Your task to perform on an android device: stop showing notifications on the lock screen Image 0: 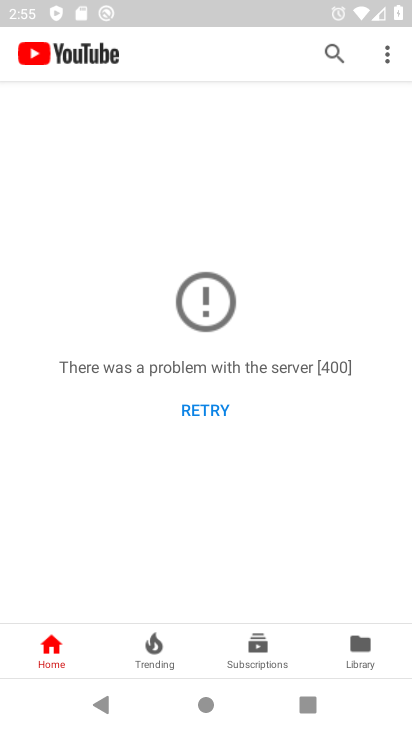
Step 0: press home button
Your task to perform on an android device: stop showing notifications on the lock screen Image 1: 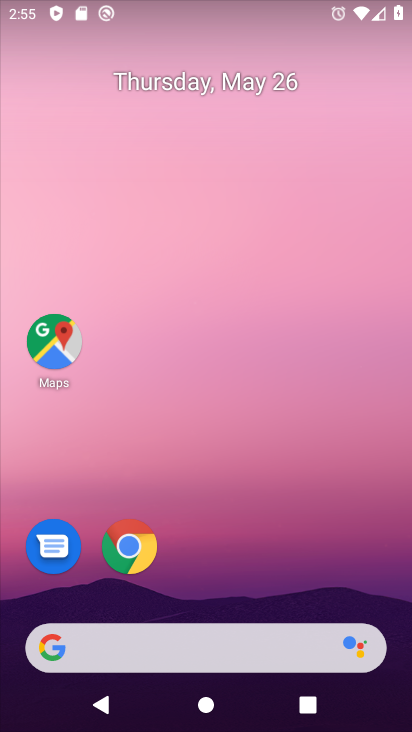
Step 1: drag from (396, 679) to (371, 295)
Your task to perform on an android device: stop showing notifications on the lock screen Image 2: 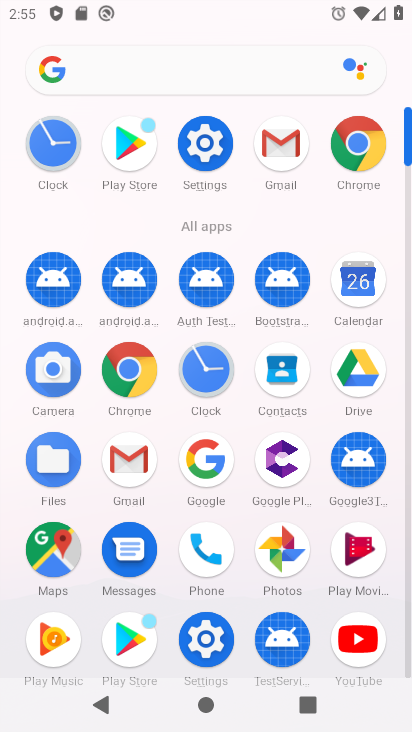
Step 2: click (202, 632)
Your task to perform on an android device: stop showing notifications on the lock screen Image 3: 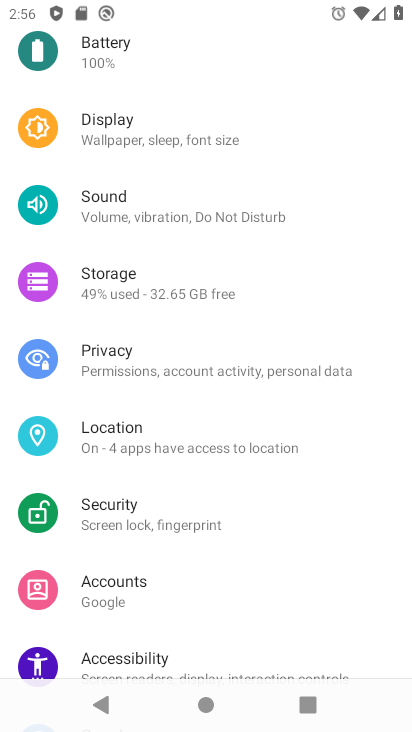
Step 3: drag from (265, 104) to (309, 419)
Your task to perform on an android device: stop showing notifications on the lock screen Image 4: 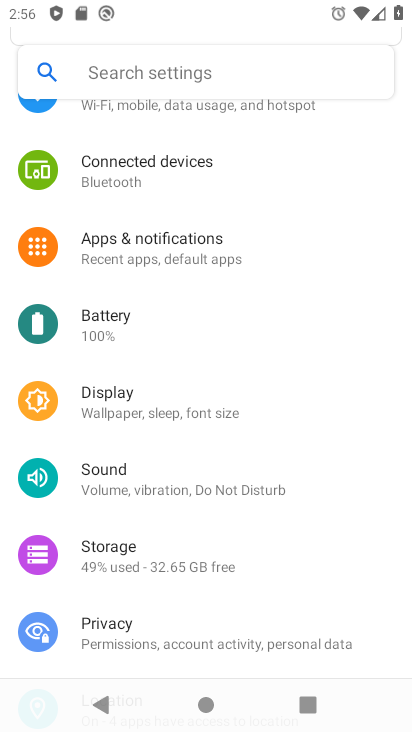
Step 4: click (199, 246)
Your task to perform on an android device: stop showing notifications on the lock screen Image 5: 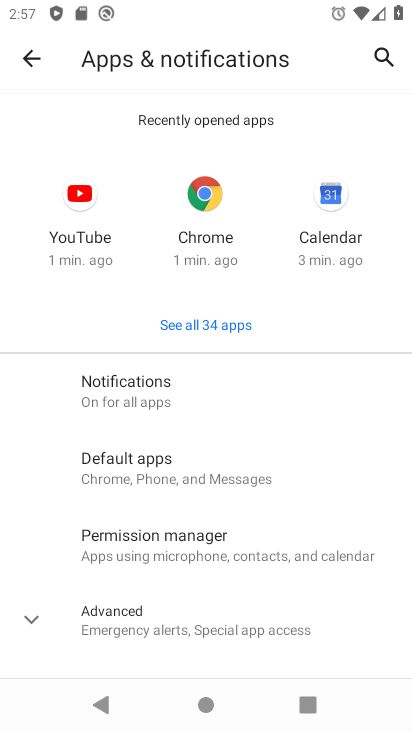
Step 5: click (134, 384)
Your task to perform on an android device: stop showing notifications on the lock screen Image 6: 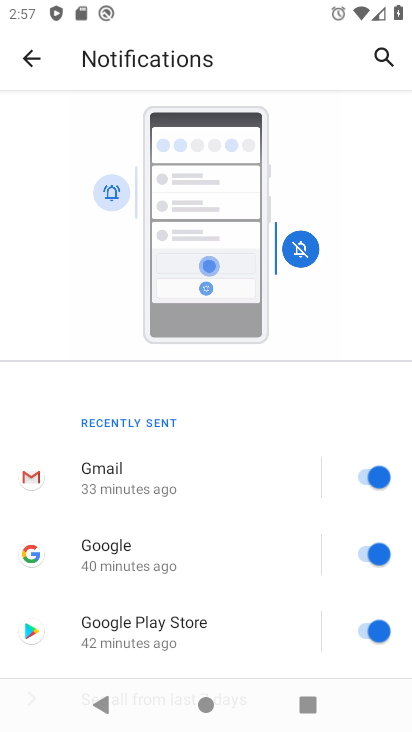
Step 6: drag from (271, 625) to (275, 262)
Your task to perform on an android device: stop showing notifications on the lock screen Image 7: 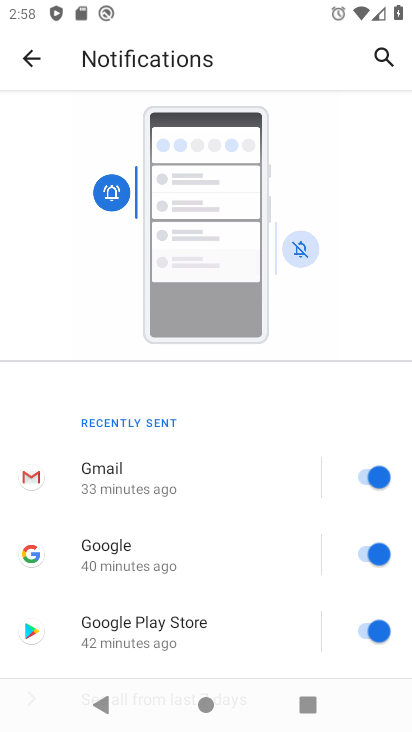
Step 7: drag from (293, 589) to (311, 222)
Your task to perform on an android device: stop showing notifications on the lock screen Image 8: 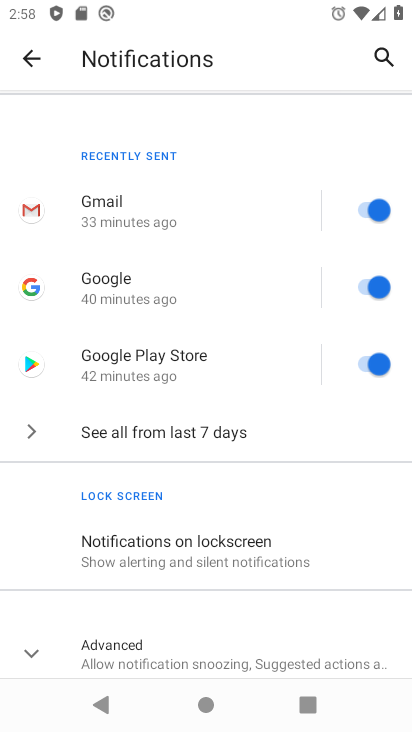
Step 8: drag from (287, 492) to (298, 260)
Your task to perform on an android device: stop showing notifications on the lock screen Image 9: 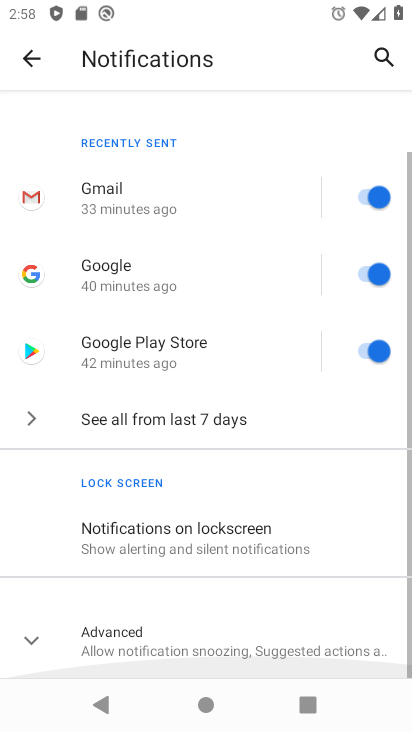
Step 9: click (189, 623)
Your task to perform on an android device: stop showing notifications on the lock screen Image 10: 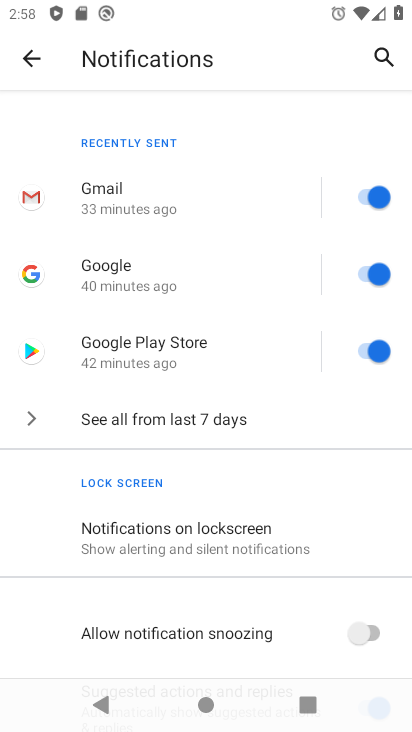
Step 10: drag from (287, 624) to (300, 316)
Your task to perform on an android device: stop showing notifications on the lock screen Image 11: 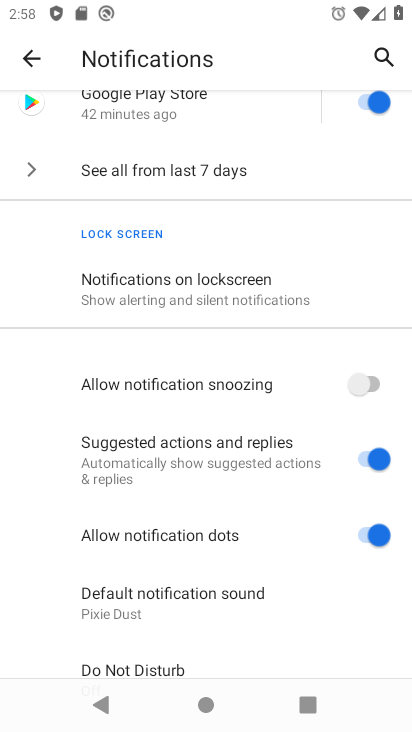
Step 11: click (185, 287)
Your task to perform on an android device: stop showing notifications on the lock screen Image 12: 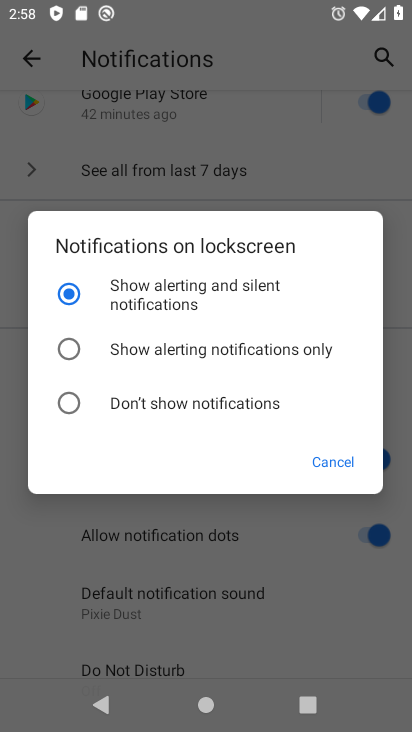
Step 12: click (66, 401)
Your task to perform on an android device: stop showing notifications on the lock screen Image 13: 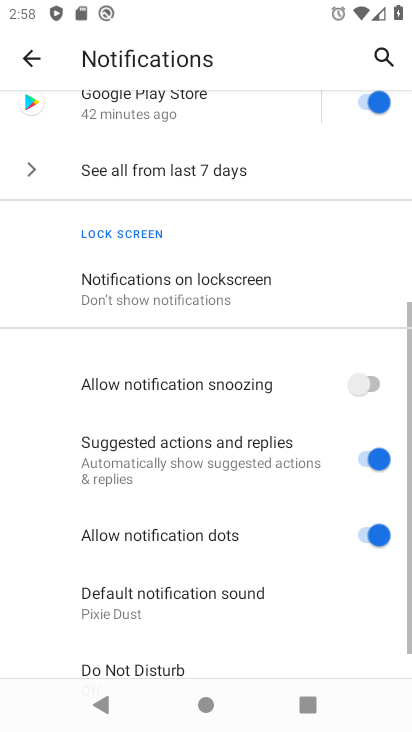
Step 13: task complete